Your task to perform on an android device: turn on showing notifications on the lock screen Image 0: 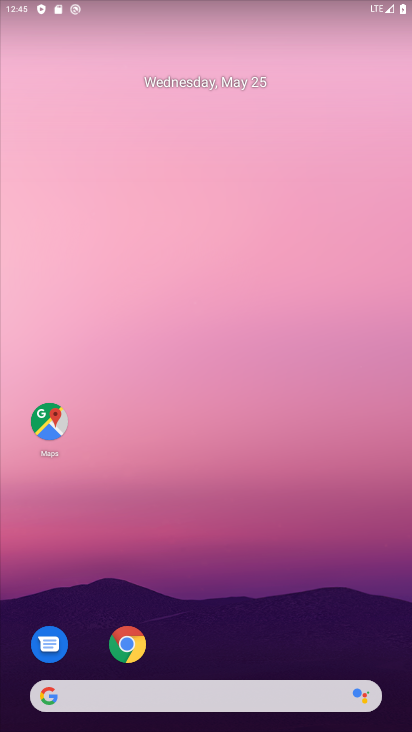
Step 0: drag from (149, 536) to (82, 152)
Your task to perform on an android device: turn on showing notifications on the lock screen Image 1: 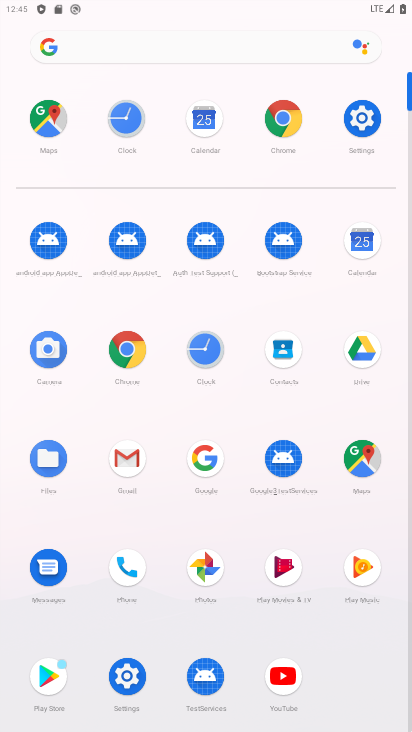
Step 1: click (359, 119)
Your task to perform on an android device: turn on showing notifications on the lock screen Image 2: 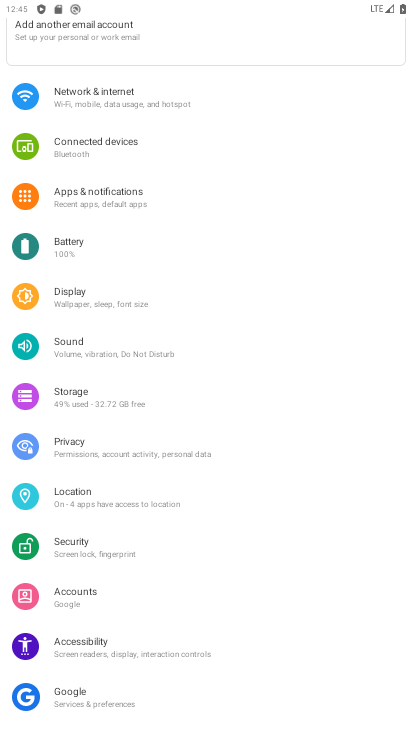
Step 2: click (80, 202)
Your task to perform on an android device: turn on showing notifications on the lock screen Image 3: 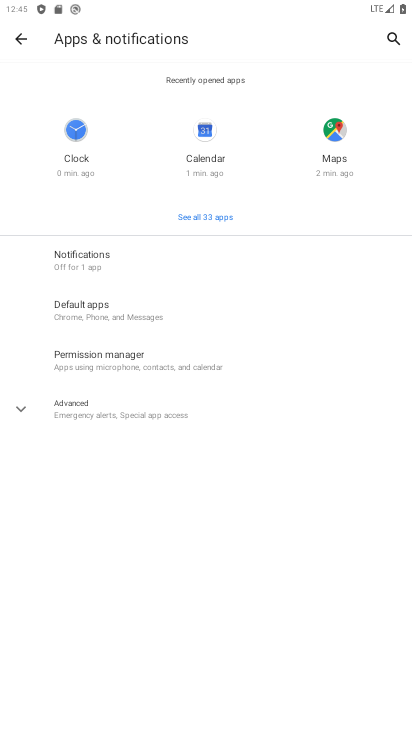
Step 3: click (81, 256)
Your task to perform on an android device: turn on showing notifications on the lock screen Image 4: 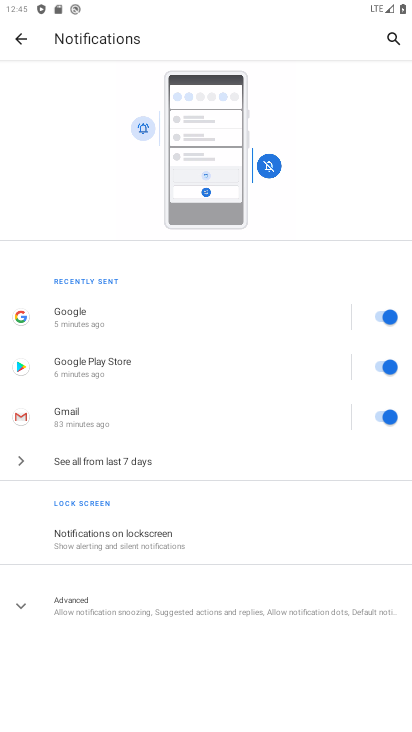
Step 4: click (65, 536)
Your task to perform on an android device: turn on showing notifications on the lock screen Image 5: 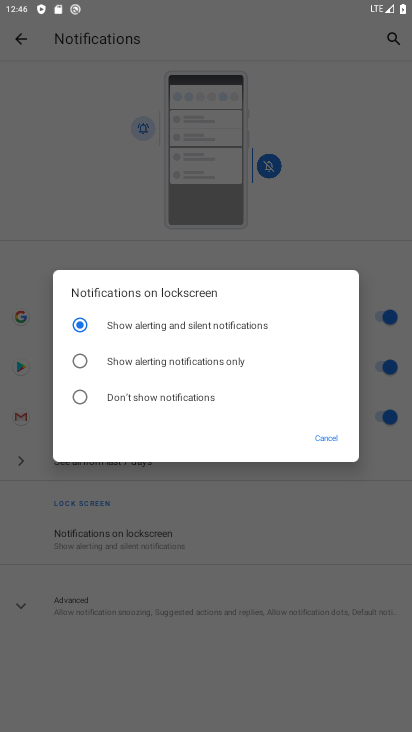
Step 5: task complete